Your task to perform on an android device: turn off location history Image 0: 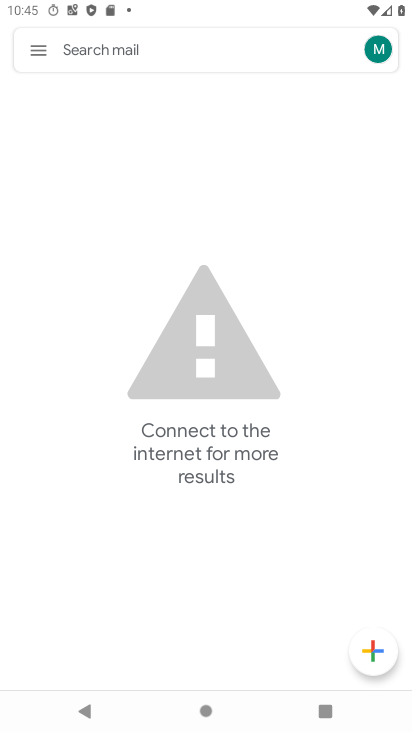
Step 0: press home button
Your task to perform on an android device: turn off location history Image 1: 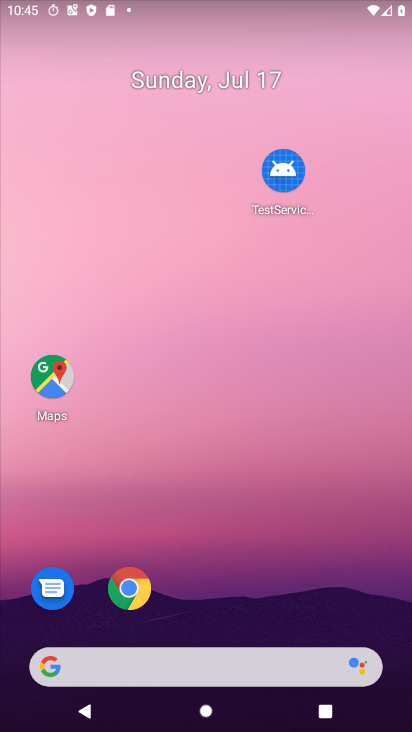
Step 1: drag from (227, 658) to (228, 120)
Your task to perform on an android device: turn off location history Image 2: 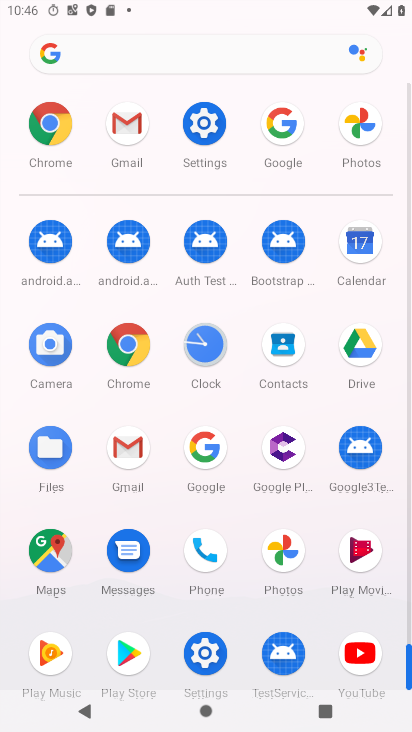
Step 2: click (201, 157)
Your task to perform on an android device: turn off location history Image 3: 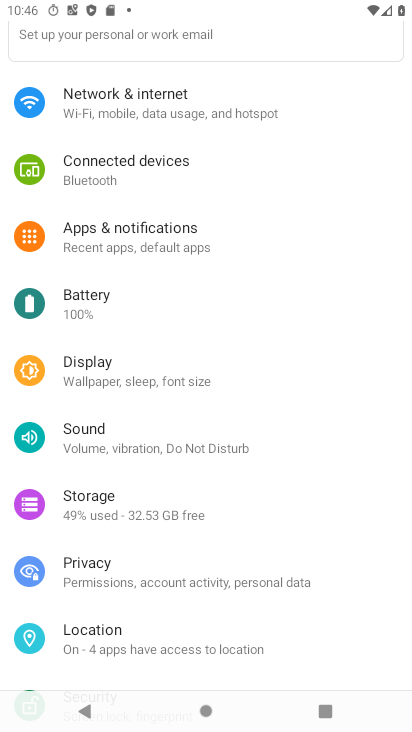
Step 3: click (164, 637)
Your task to perform on an android device: turn off location history Image 4: 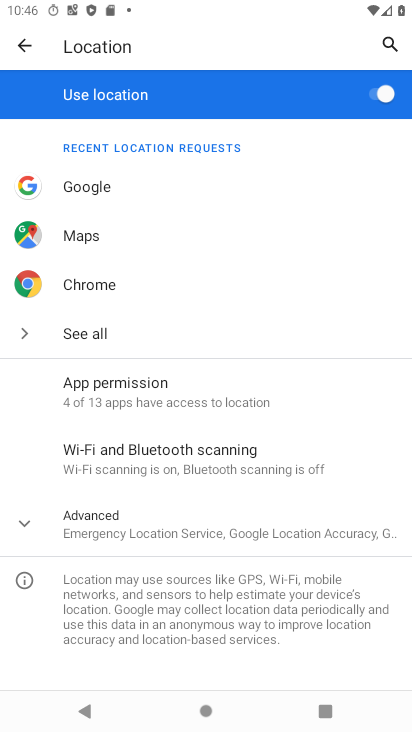
Step 4: click (209, 532)
Your task to perform on an android device: turn off location history Image 5: 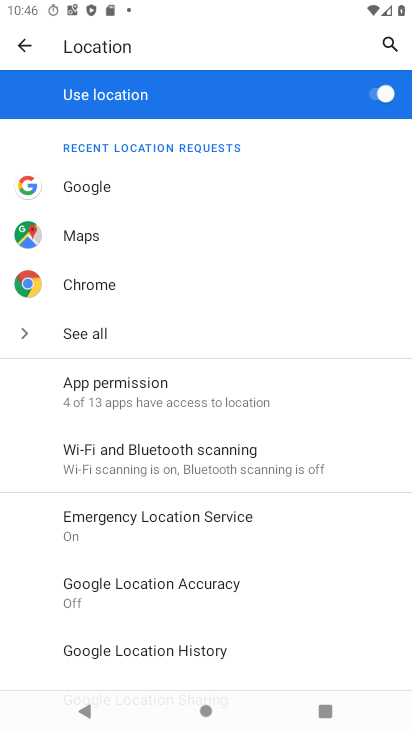
Step 5: click (157, 650)
Your task to perform on an android device: turn off location history Image 6: 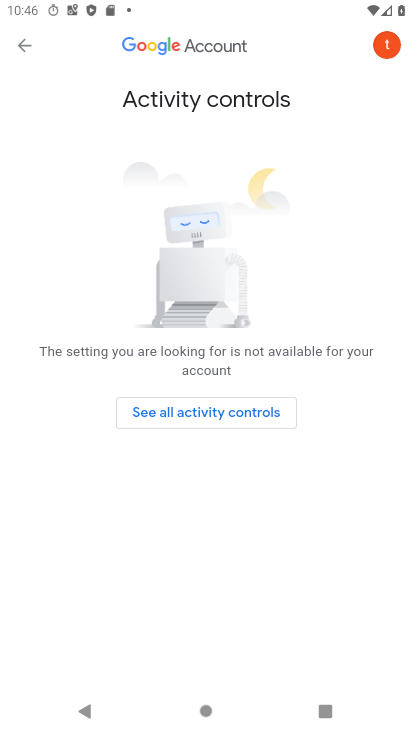
Step 6: task complete